Your task to perform on an android device: Show me the alarms in the clock app Image 0: 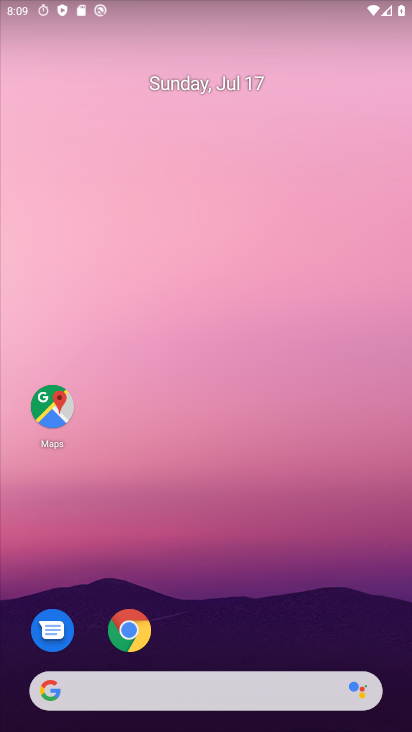
Step 0: drag from (29, 637) to (115, 306)
Your task to perform on an android device: Show me the alarms in the clock app Image 1: 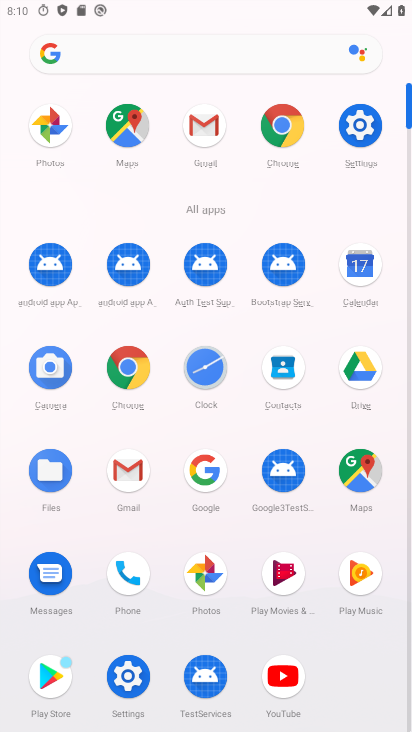
Step 1: click (106, 662)
Your task to perform on an android device: Show me the alarms in the clock app Image 2: 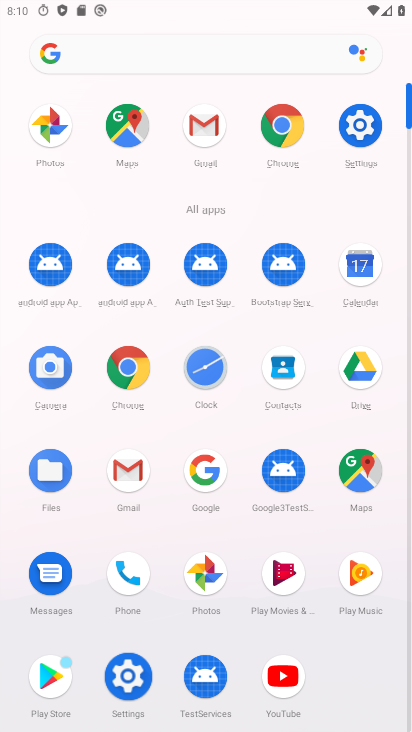
Step 2: click (120, 670)
Your task to perform on an android device: Show me the alarms in the clock app Image 3: 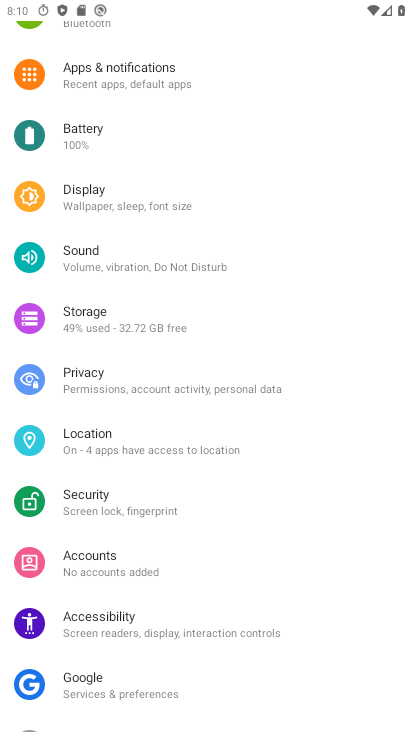
Step 3: click (117, 431)
Your task to perform on an android device: Show me the alarms in the clock app Image 4: 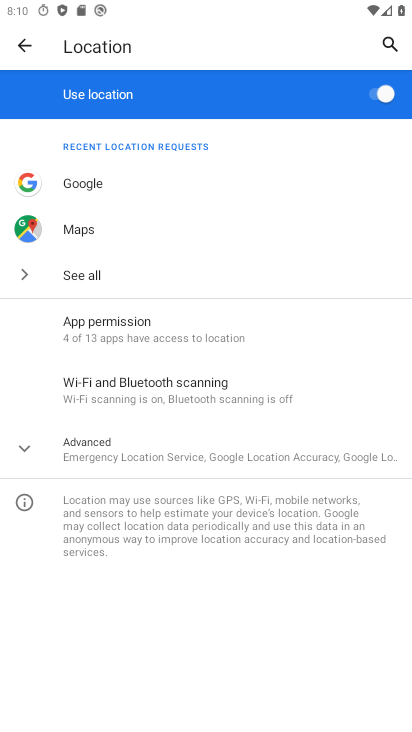
Step 4: click (80, 445)
Your task to perform on an android device: Show me the alarms in the clock app Image 5: 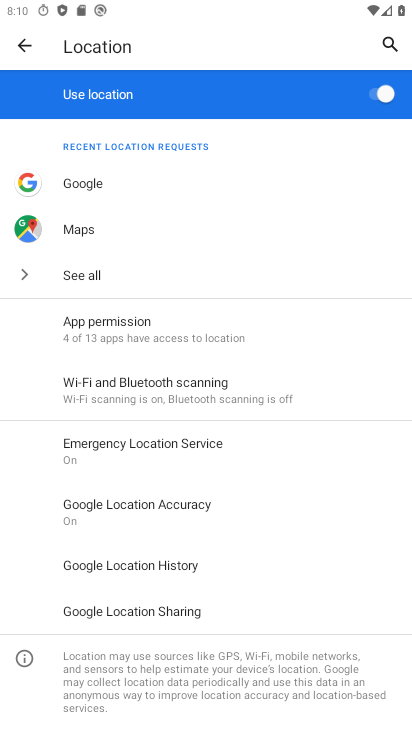
Step 5: click (97, 553)
Your task to perform on an android device: Show me the alarms in the clock app Image 6: 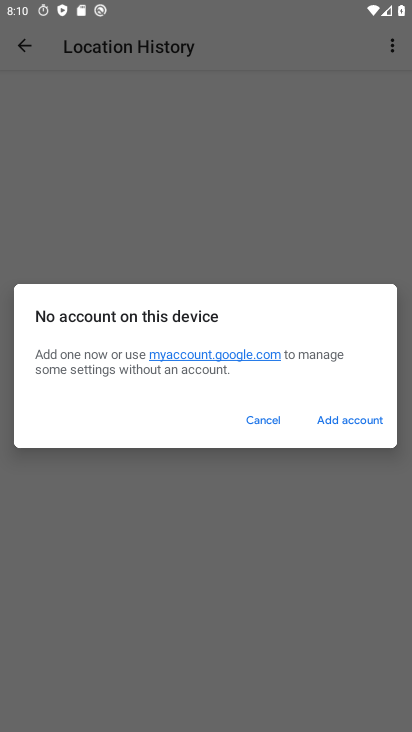
Step 6: click (263, 420)
Your task to perform on an android device: Show me the alarms in the clock app Image 7: 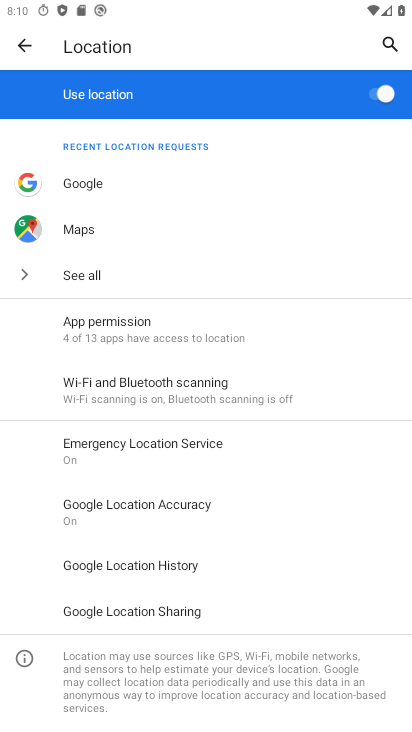
Step 7: click (116, 568)
Your task to perform on an android device: Show me the alarms in the clock app Image 8: 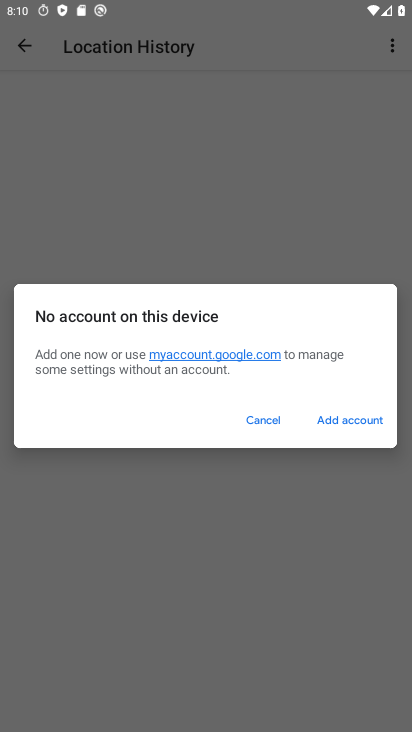
Step 8: click (267, 401)
Your task to perform on an android device: Show me the alarms in the clock app Image 9: 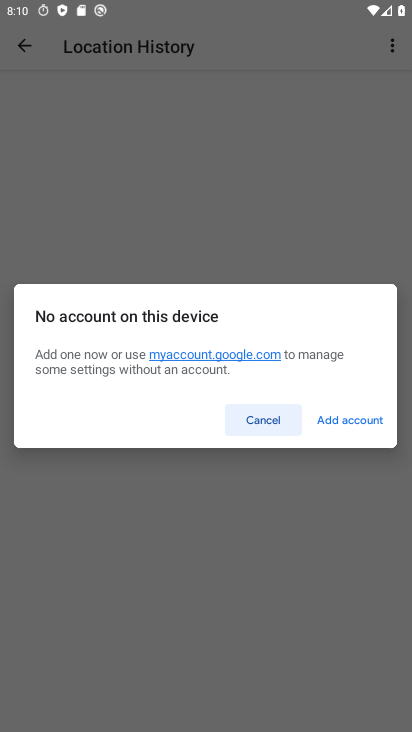
Step 9: click (255, 431)
Your task to perform on an android device: Show me the alarms in the clock app Image 10: 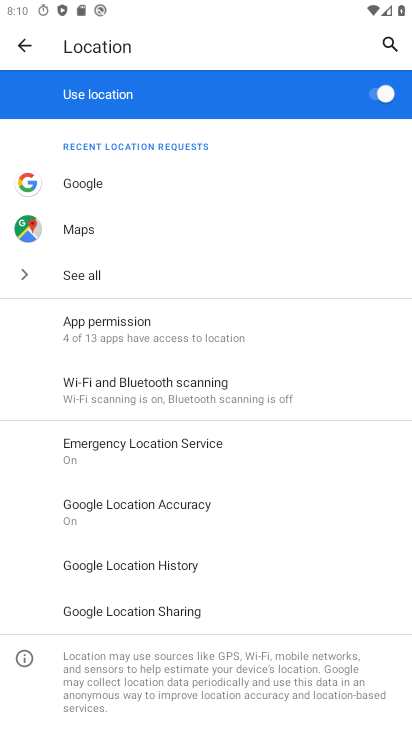
Step 10: task complete